Your task to perform on an android device: Do I have any events tomorrow? Image 0: 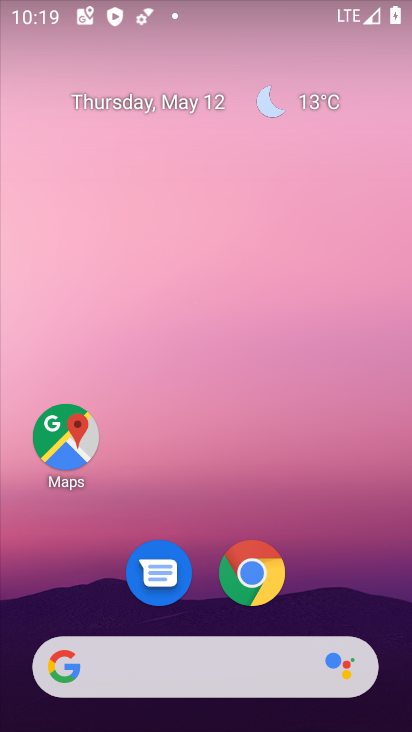
Step 0: drag from (218, 628) to (127, 26)
Your task to perform on an android device: Do I have any events tomorrow? Image 1: 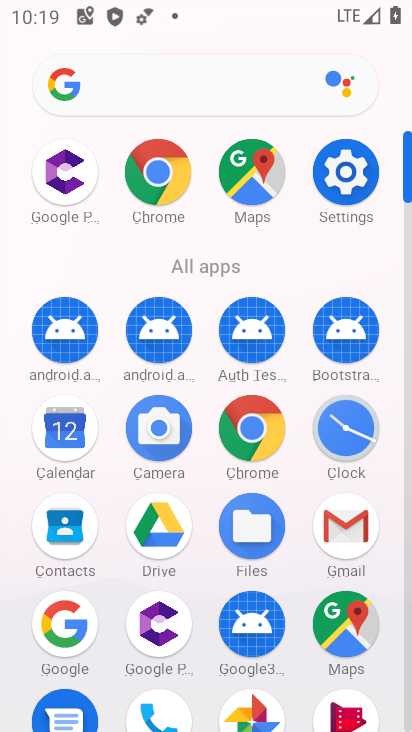
Step 1: click (62, 438)
Your task to perform on an android device: Do I have any events tomorrow? Image 2: 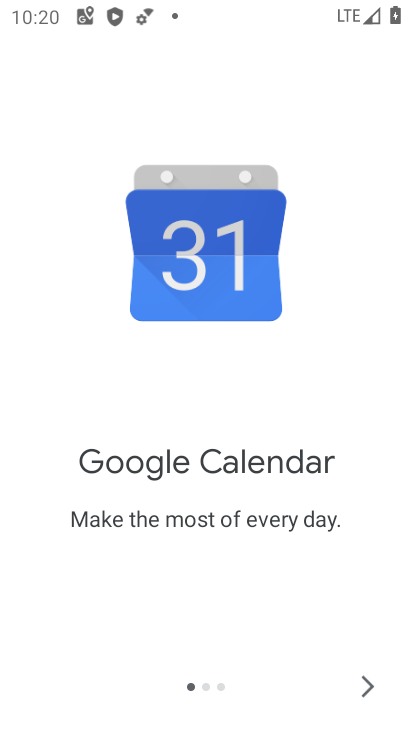
Step 2: click (370, 682)
Your task to perform on an android device: Do I have any events tomorrow? Image 3: 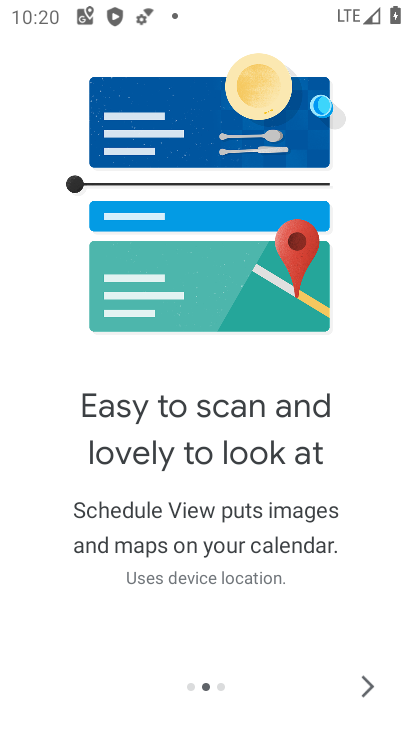
Step 3: click (372, 686)
Your task to perform on an android device: Do I have any events tomorrow? Image 4: 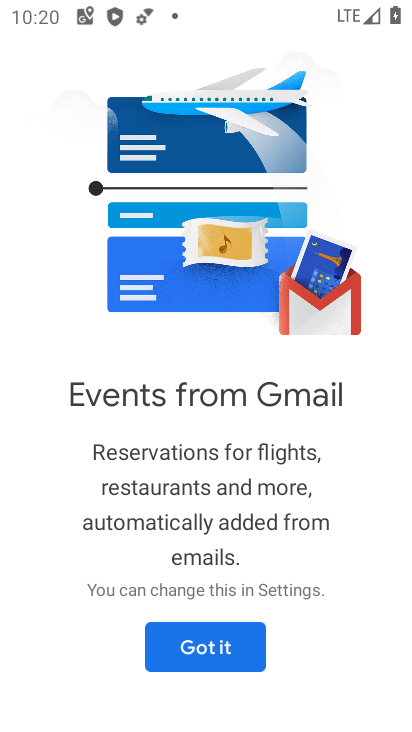
Step 4: click (208, 634)
Your task to perform on an android device: Do I have any events tomorrow? Image 5: 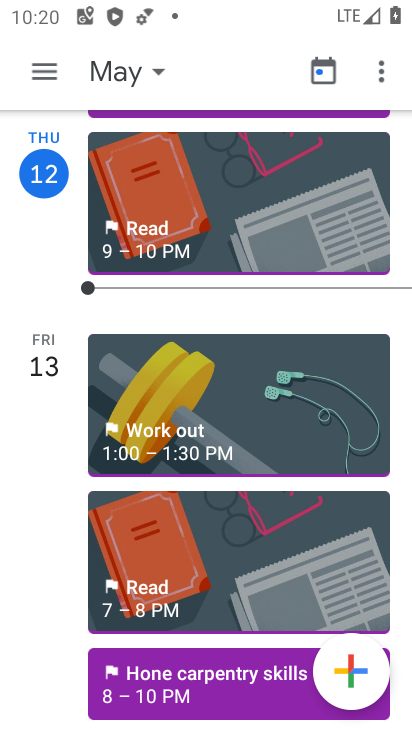
Step 5: click (46, 68)
Your task to perform on an android device: Do I have any events tomorrow? Image 6: 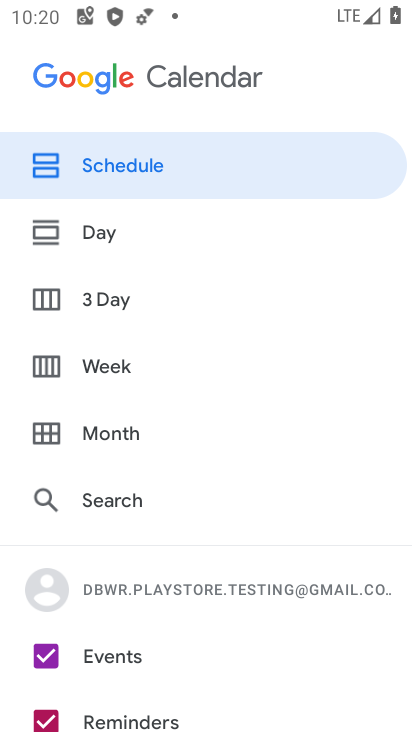
Step 6: click (109, 286)
Your task to perform on an android device: Do I have any events tomorrow? Image 7: 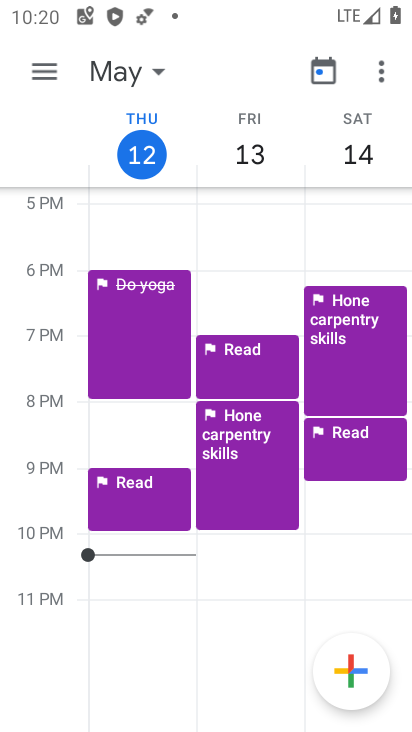
Step 7: click (259, 128)
Your task to perform on an android device: Do I have any events tomorrow? Image 8: 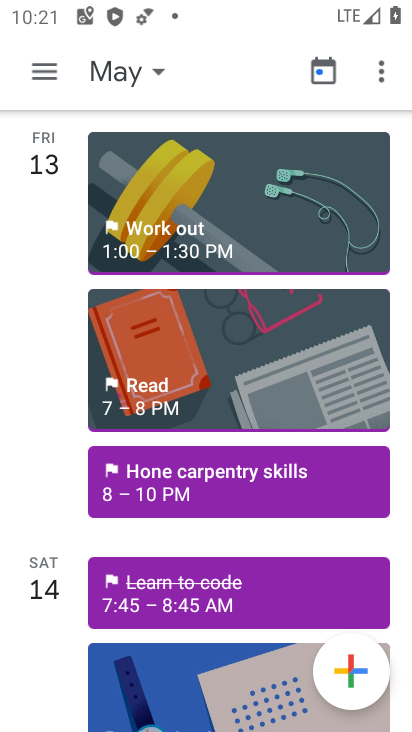
Step 8: task complete